Your task to perform on an android device: stop showing notifications on the lock screen Image 0: 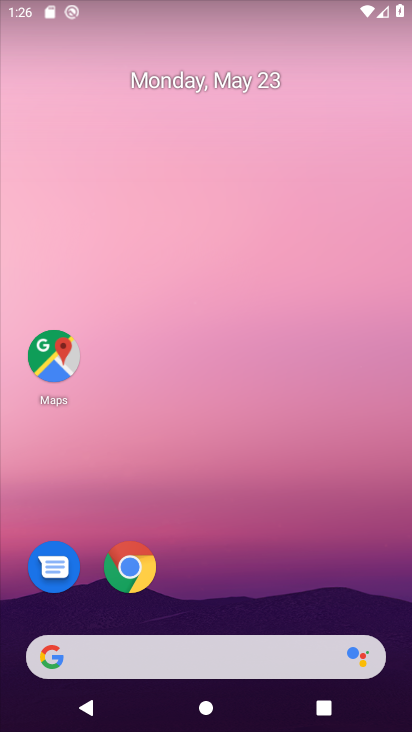
Step 0: click (292, 426)
Your task to perform on an android device: stop showing notifications on the lock screen Image 1: 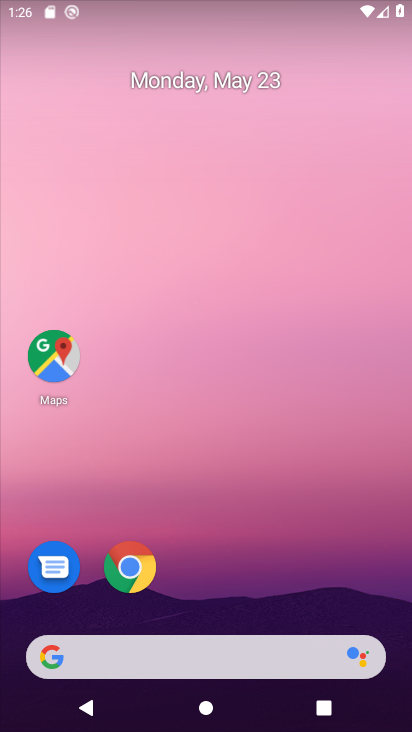
Step 1: drag from (275, 560) to (274, 240)
Your task to perform on an android device: stop showing notifications on the lock screen Image 2: 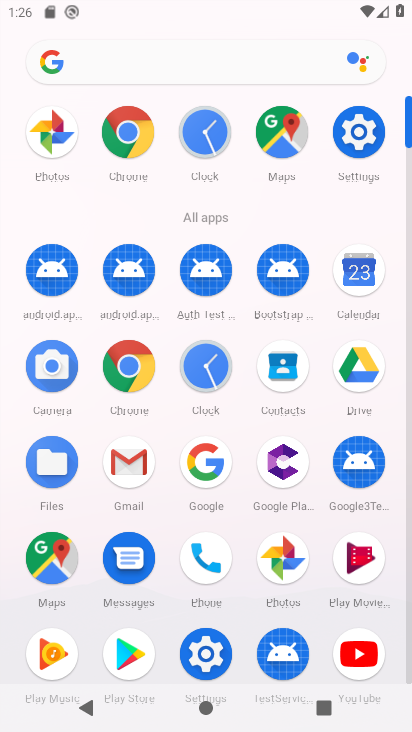
Step 2: click (210, 658)
Your task to perform on an android device: stop showing notifications on the lock screen Image 3: 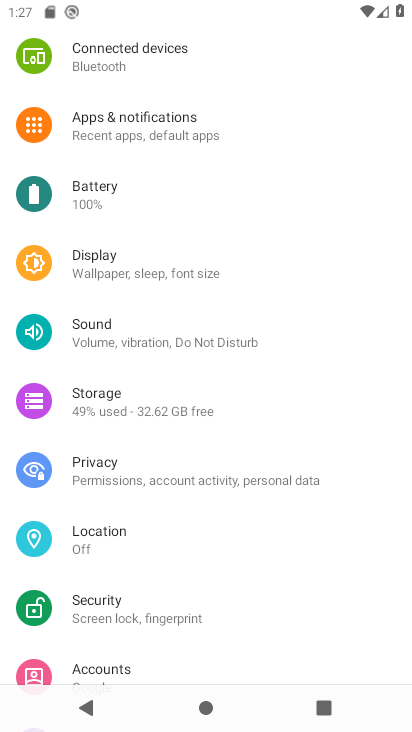
Step 3: drag from (158, 408) to (208, 183)
Your task to perform on an android device: stop showing notifications on the lock screen Image 4: 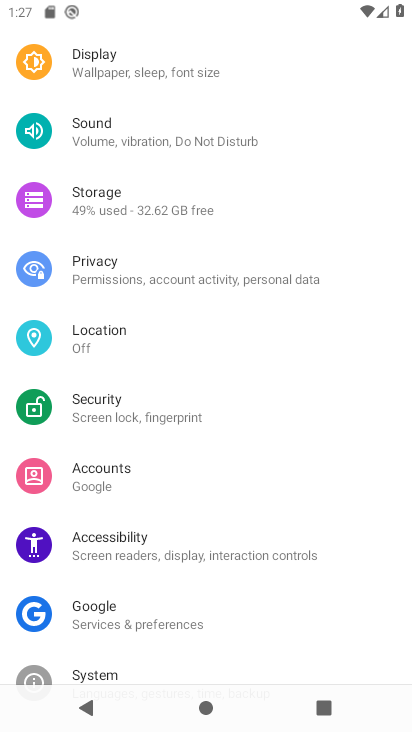
Step 4: drag from (140, 524) to (185, 629)
Your task to perform on an android device: stop showing notifications on the lock screen Image 5: 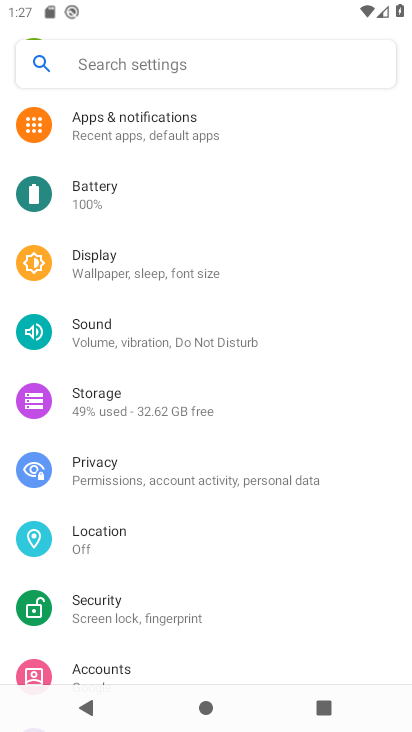
Step 5: drag from (211, 292) to (206, 504)
Your task to perform on an android device: stop showing notifications on the lock screen Image 6: 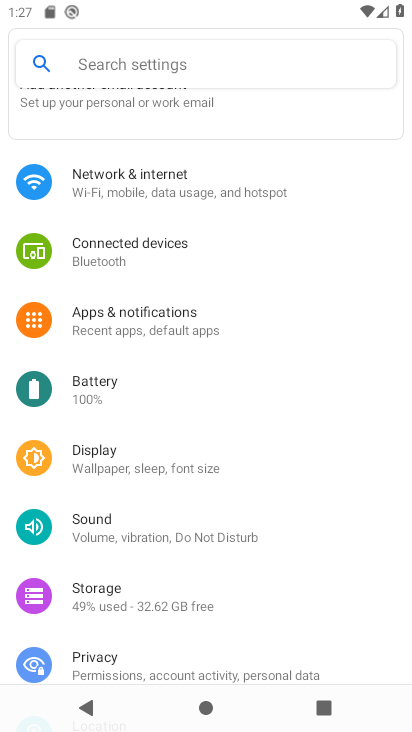
Step 6: click (172, 325)
Your task to perform on an android device: stop showing notifications on the lock screen Image 7: 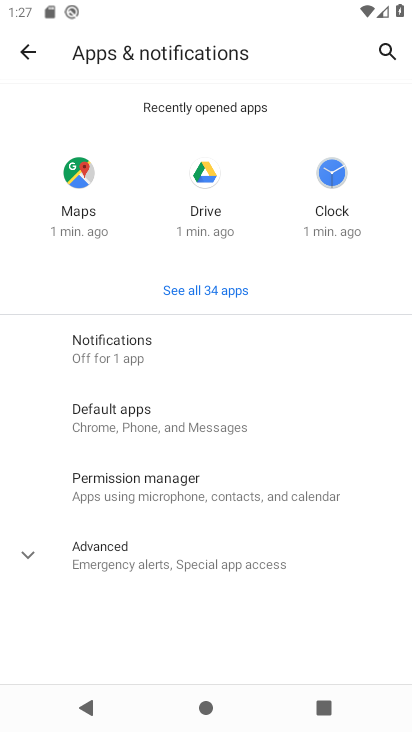
Step 7: click (166, 362)
Your task to perform on an android device: stop showing notifications on the lock screen Image 8: 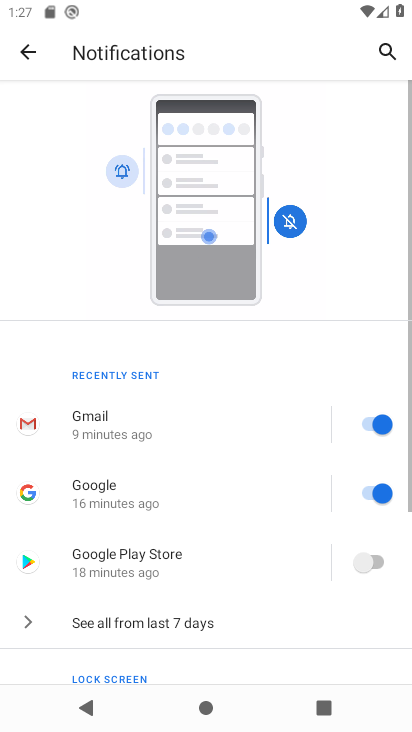
Step 8: drag from (153, 541) to (203, 247)
Your task to perform on an android device: stop showing notifications on the lock screen Image 9: 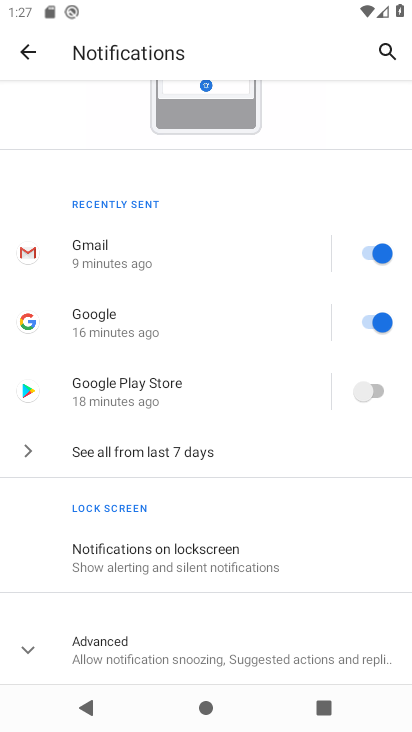
Step 9: click (148, 557)
Your task to perform on an android device: stop showing notifications on the lock screen Image 10: 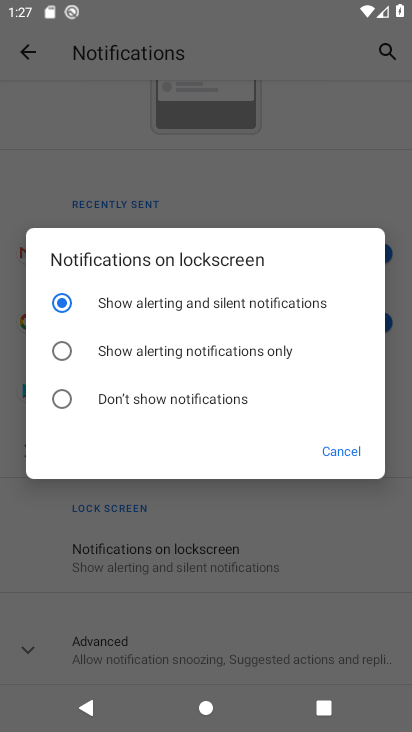
Step 10: click (204, 405)
Your task to perform on an android device: stop showing notifications on the lock screen Image 11: 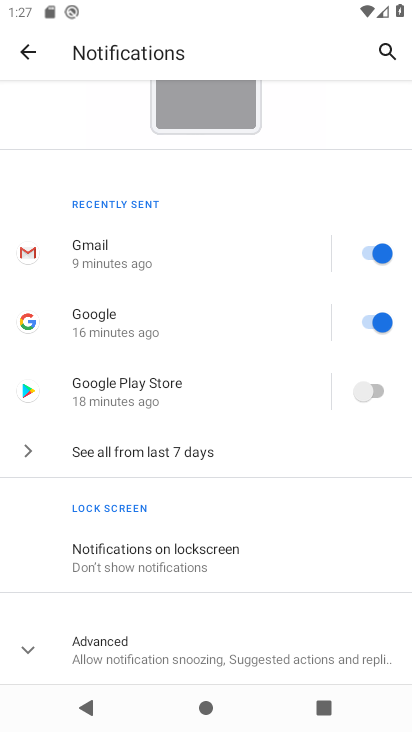
Step 11: task complete